Your task to perform on an android device: Show me the alarms in the clock app Image 0: 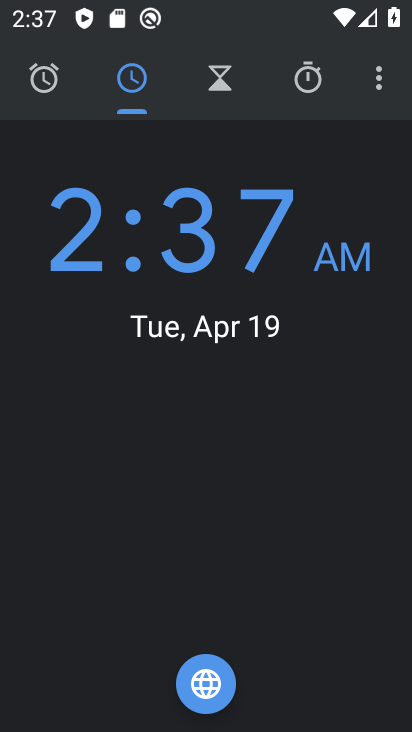
Step 0: press back button
Your task to perform on an android device: Show me the alarms in the clock app Image 1: 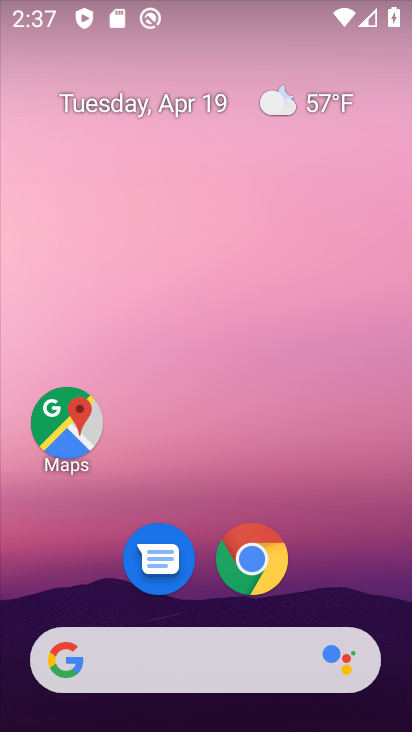
Step 1: drag from (210, 605) to (190, 174)
Your task to perform on an android device: Show me the alarms in the clock app Image 2: 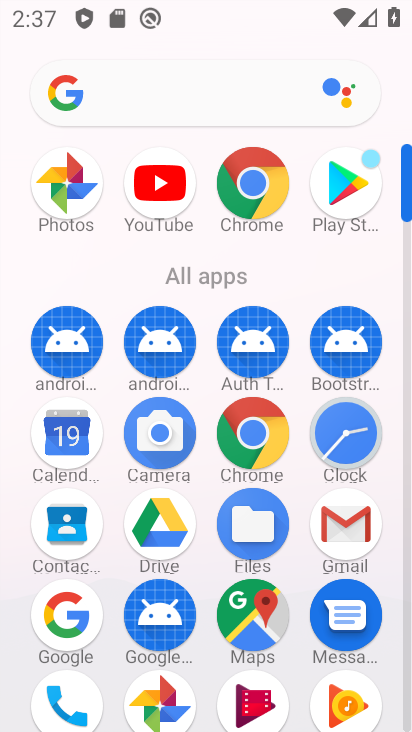
Step 2: click (349, 438)
Your task to perform on an android device: Show me the alarms in the clock app Image 3: 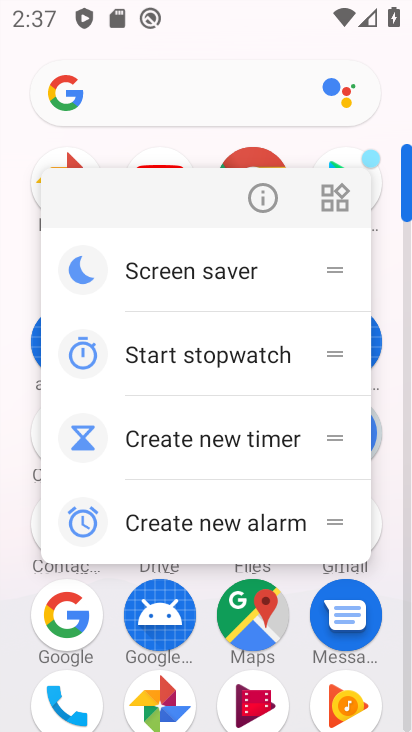
Step 3: click (254, 193)
Your task to perform on an android device: Show me the alarms in the clock app Image 4: 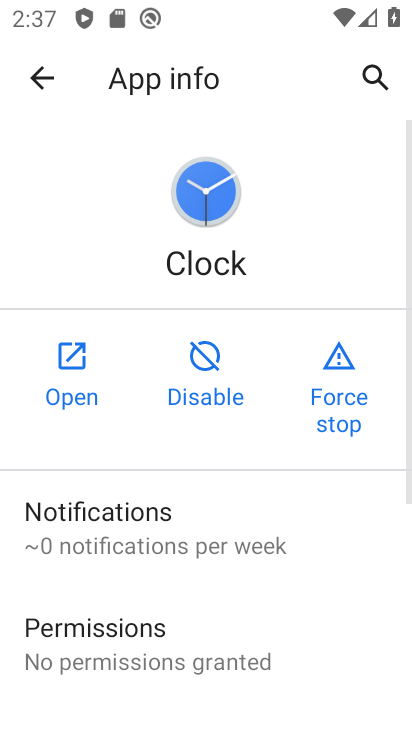
Step 4: click (89, 374)
Your task to perform on an android device: Show me the alarms in the clock app Image 5: 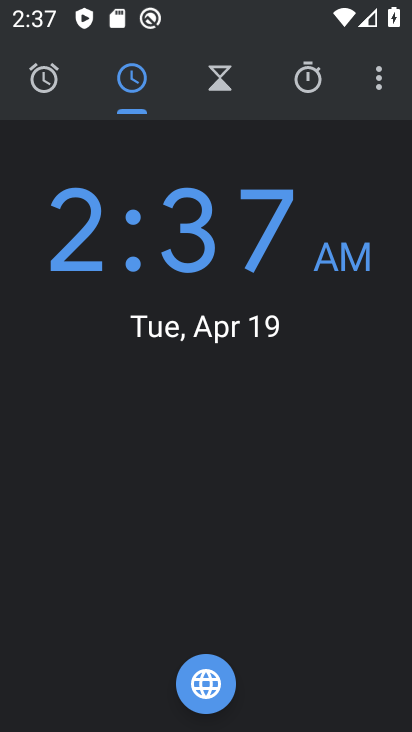
Step 5: click (43, 85)
Your task to perform on an android device: Show me the alarms in the clock app Image 6: 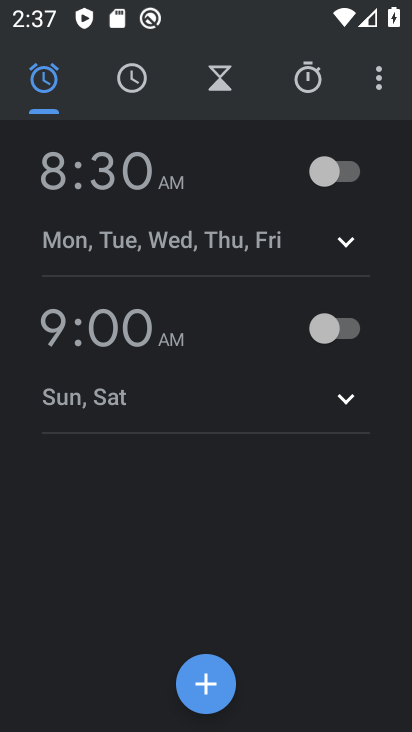
Step 6: task complete